Your task to perform on an android device: turn on wifi Image 0: 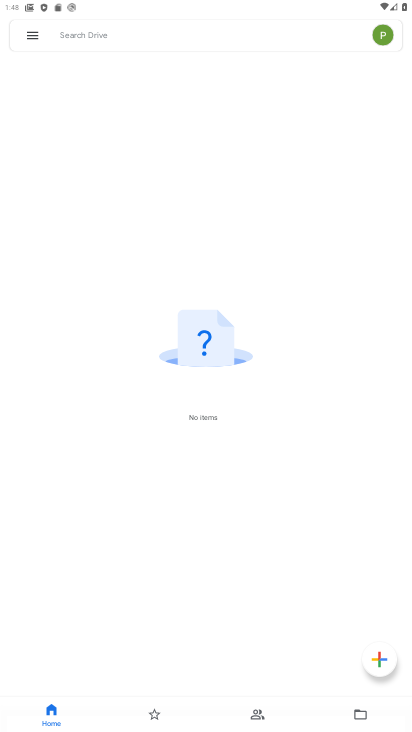
Step 0: press home button
Your task to perform on an android device: turn on wifi Image 1: 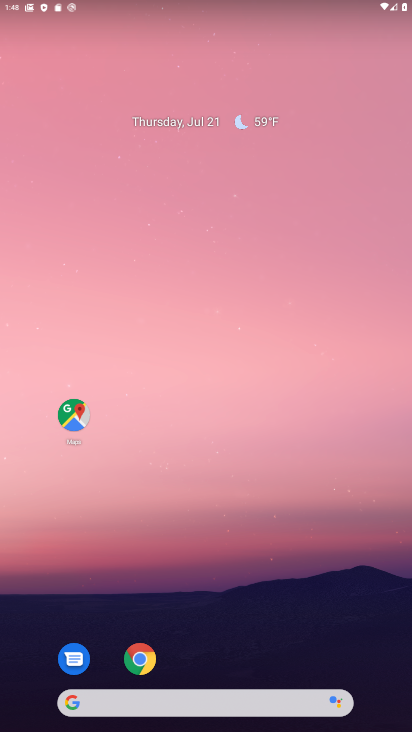
Step 1: drag from (347, 616) to (308, 53)
Your task to perform on an android device: turn on wifi Image 2: 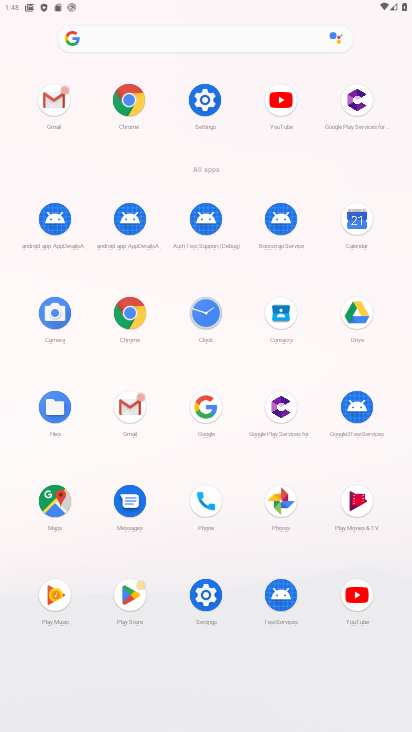
Step 2: click (196, 106)
Your task to perform on an android device: turn on wifi Image 3: 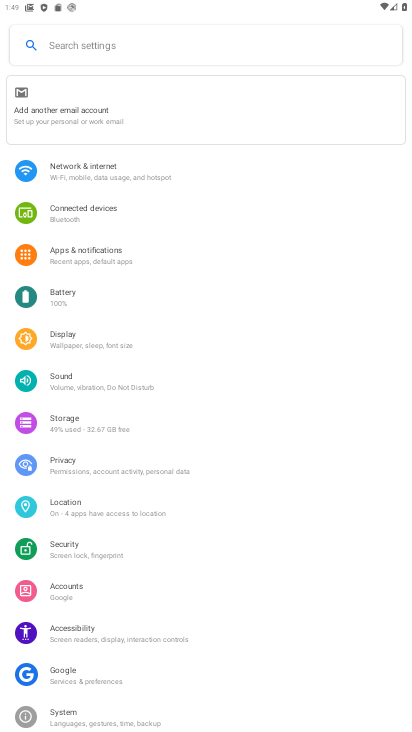
Step 3: click (80, 163)
Your task to perform on an android device: turn on wifi Image 4: 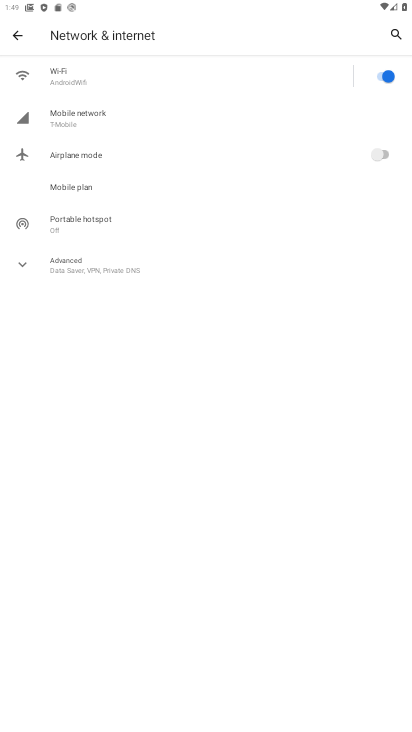
Step 4: task complete